Your task to perform on an android device: refresh tabs in the chrome app Image 0: 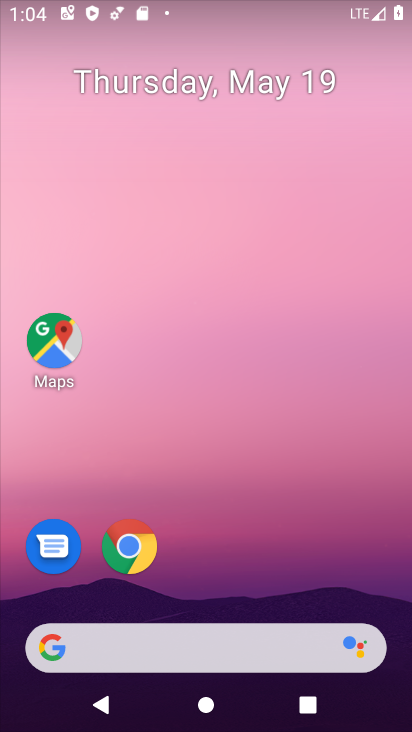
Step 0: click (137, 553)
Your task to perform on an android device: refresh tabs in the chrome app Image 1: 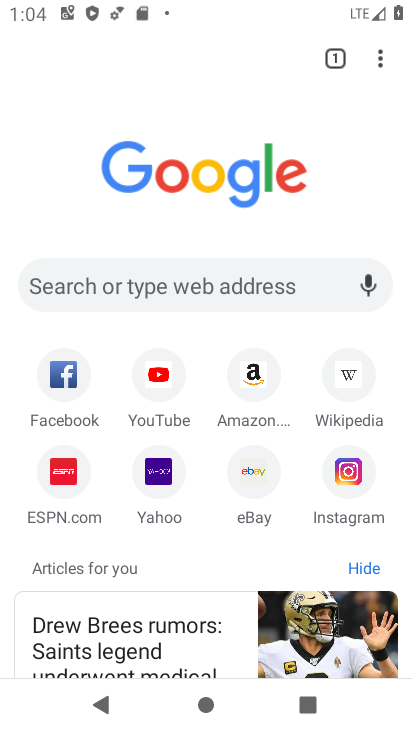
Step 1: click (387, 51)
Your task to perform on an android device: refresh tabs in the chrome app Image 2: 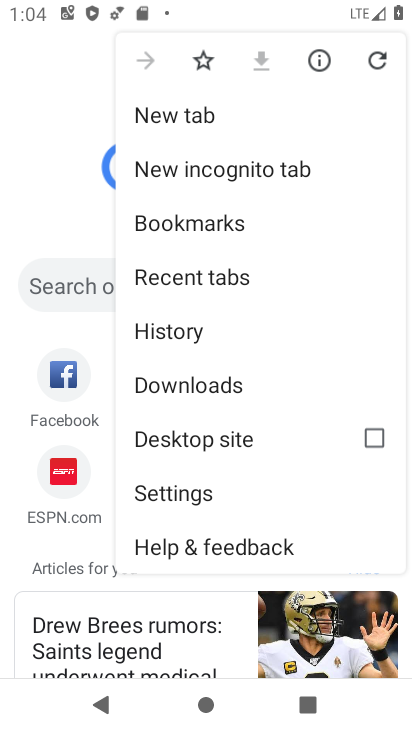
Step 2: click (382, 65)
Your task to perform on an android device: refresh tabs in the chrome app Image 3: 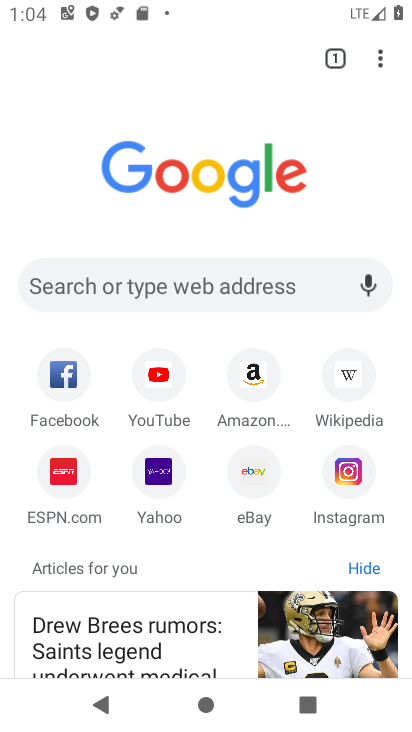
Step 3: click (382, 56)
Your task to perform on an android device: refresh tabs in the chrome app Image 4: 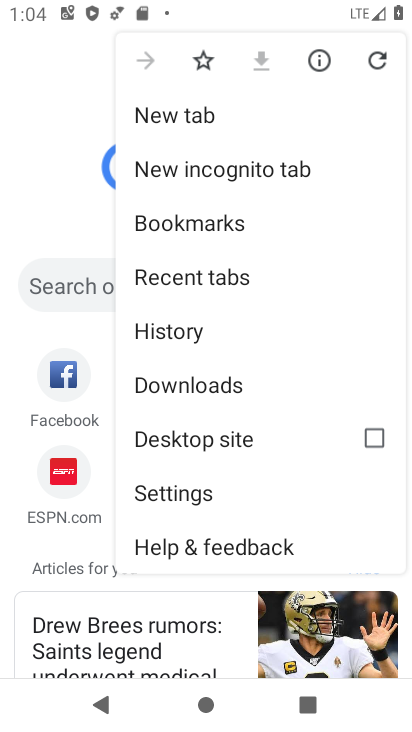
Step 4: click (382, 56)
Your task to perform on an android device: refresh tabs in the chrome app Image 5: 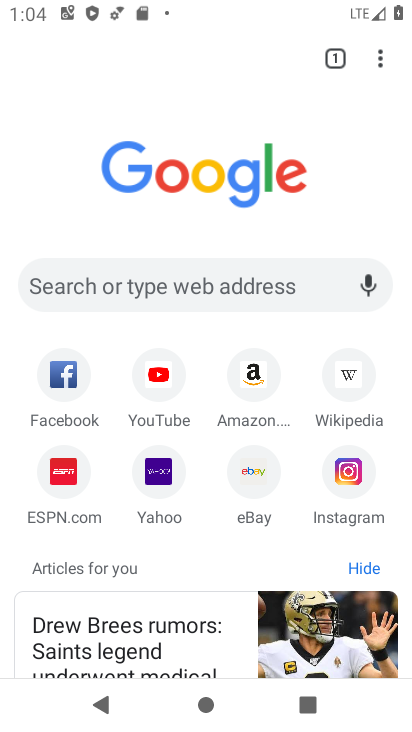
Step 5: task complete